Your task to perform on an android device: open app "DoorDash - Food Delivery" Image 0: 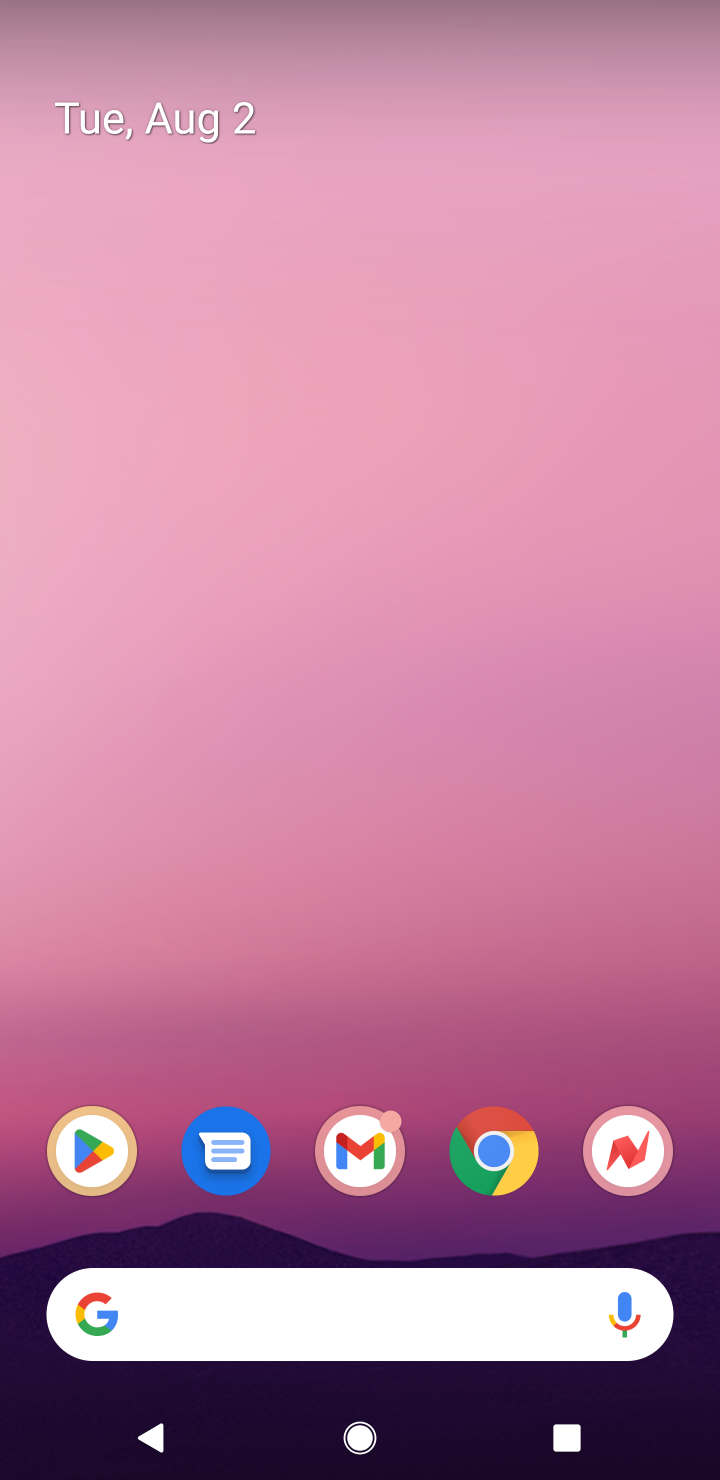
Step 0: click (113, 1137)
Your task to perform on an android device: open app "DoorDash - Food Delivery" Image 1: 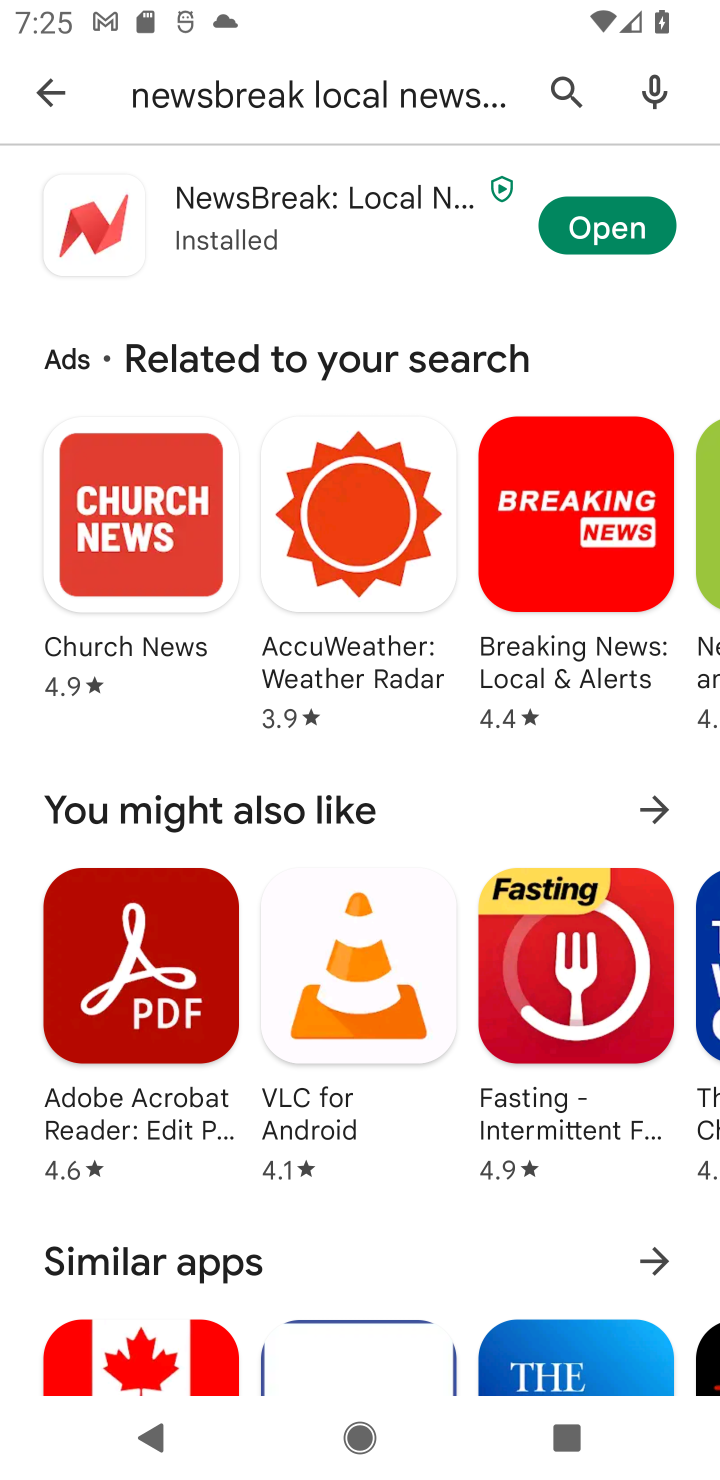
Step 1: click (550, 80)
Your task to perform on an android device: open app "DoorDash - Food Delivery" Image 2: 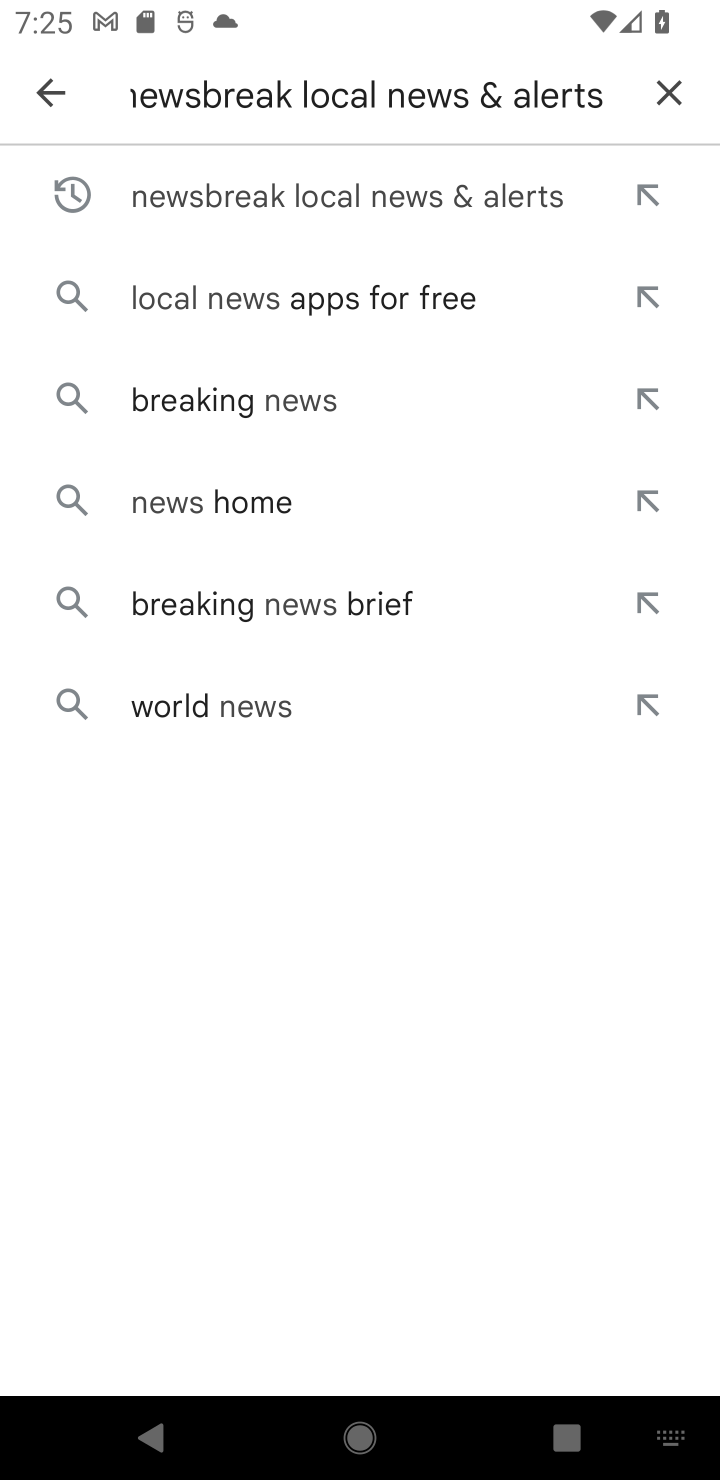
Step 2: click (664, 87)
Your task to perform on an android device: open app "DoorDash - Food Delivery" Image 3: 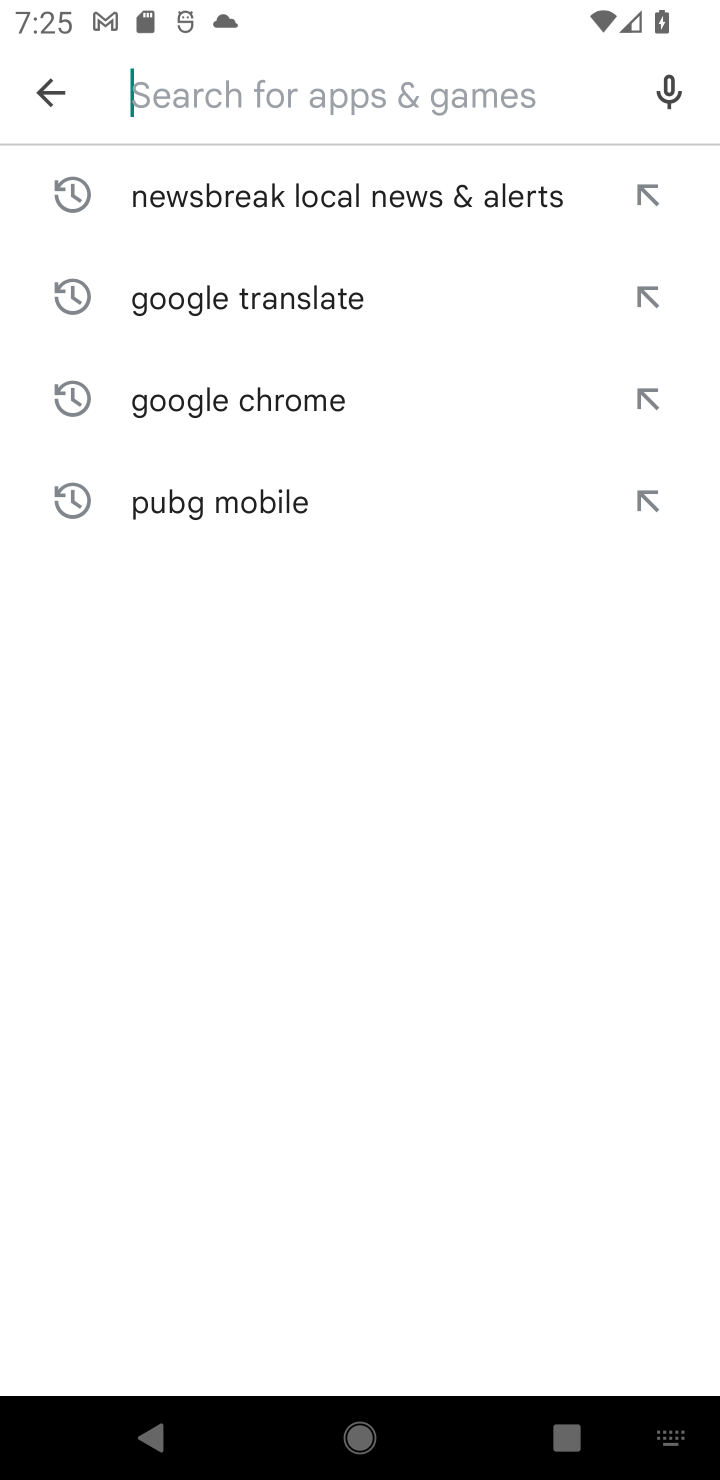
Step 3: type "DoorDash - Food Delivery"
Your task to perform on an android device: open app "DoorDash - Food Delivery" Image 4: 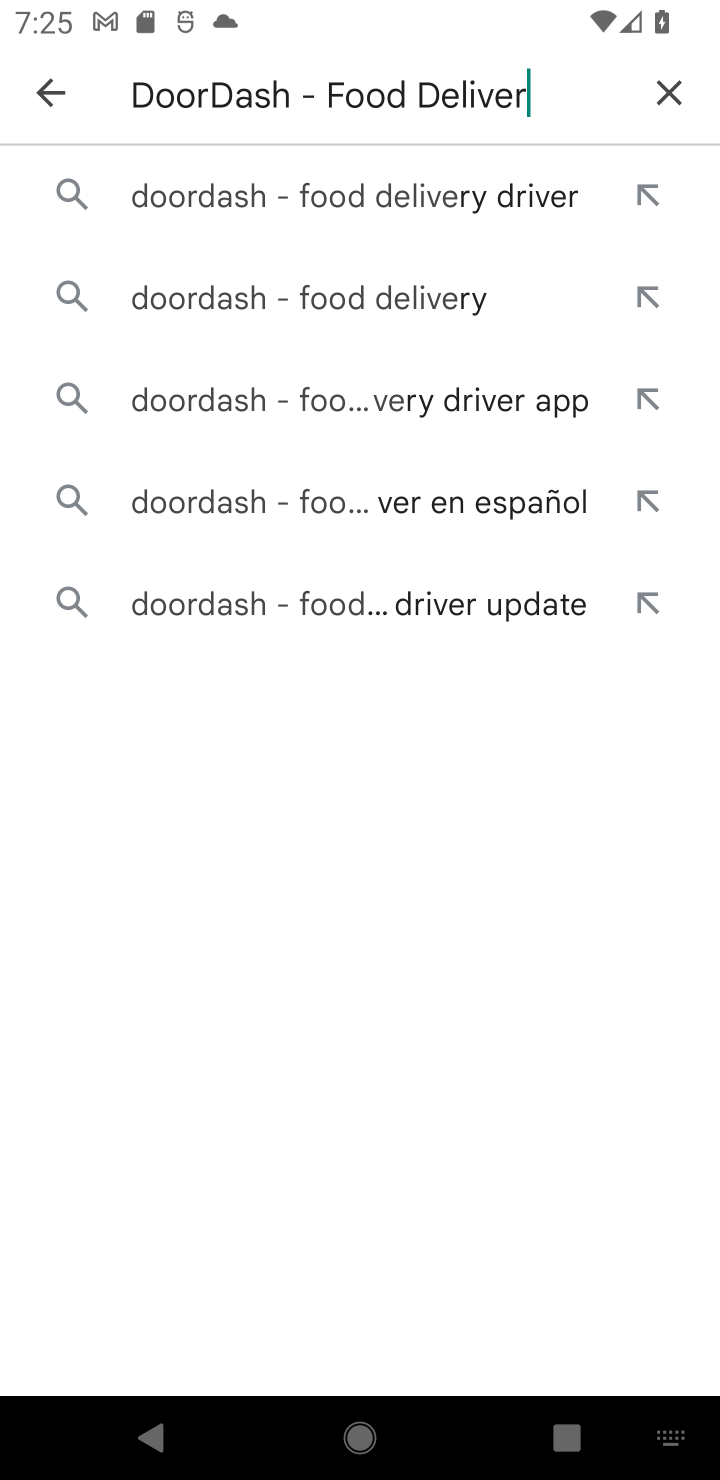
Step 4: type ""
Your task to perform on an android device: open app "DoorDash - Food Delivery" Image 5: 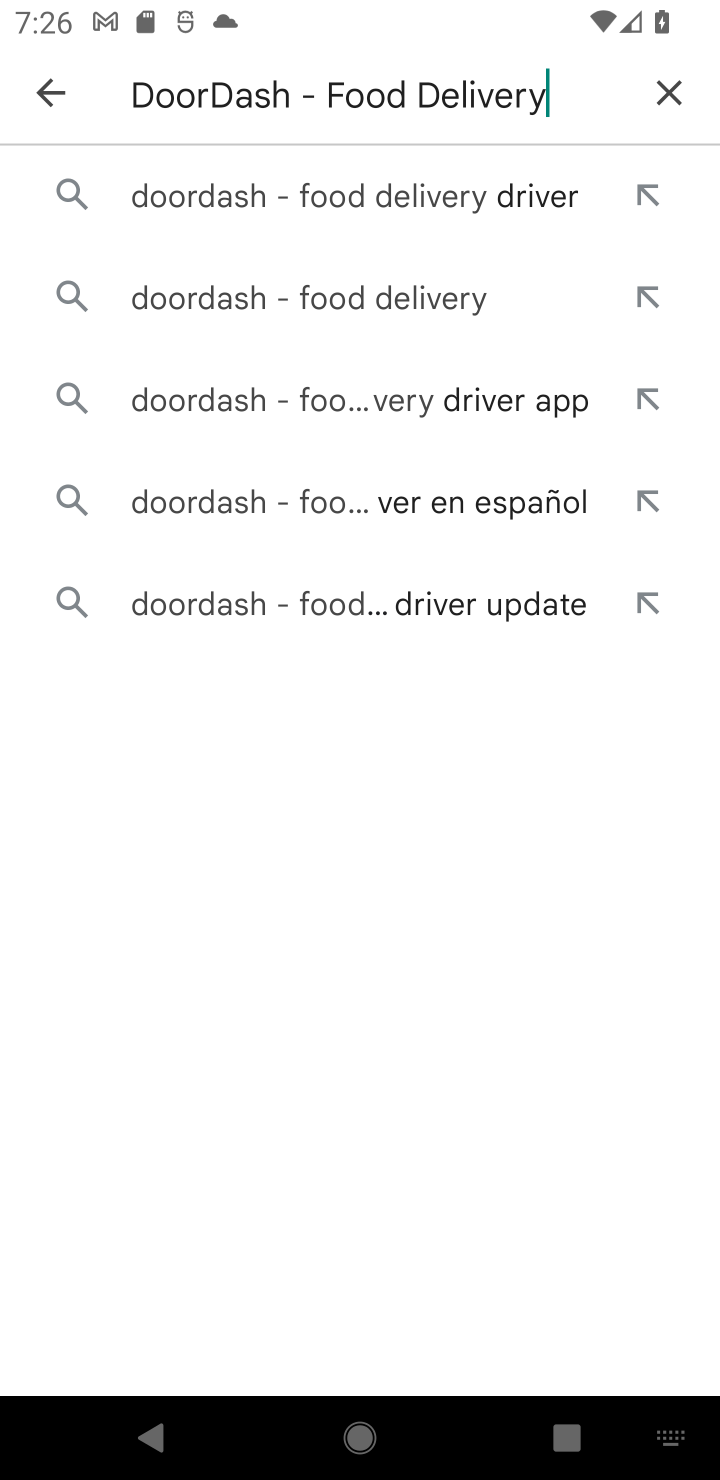
Step 5: click (428, 303)
Your task to perform on an android device: open app "DoorDash - Food Delivery" Image 6: 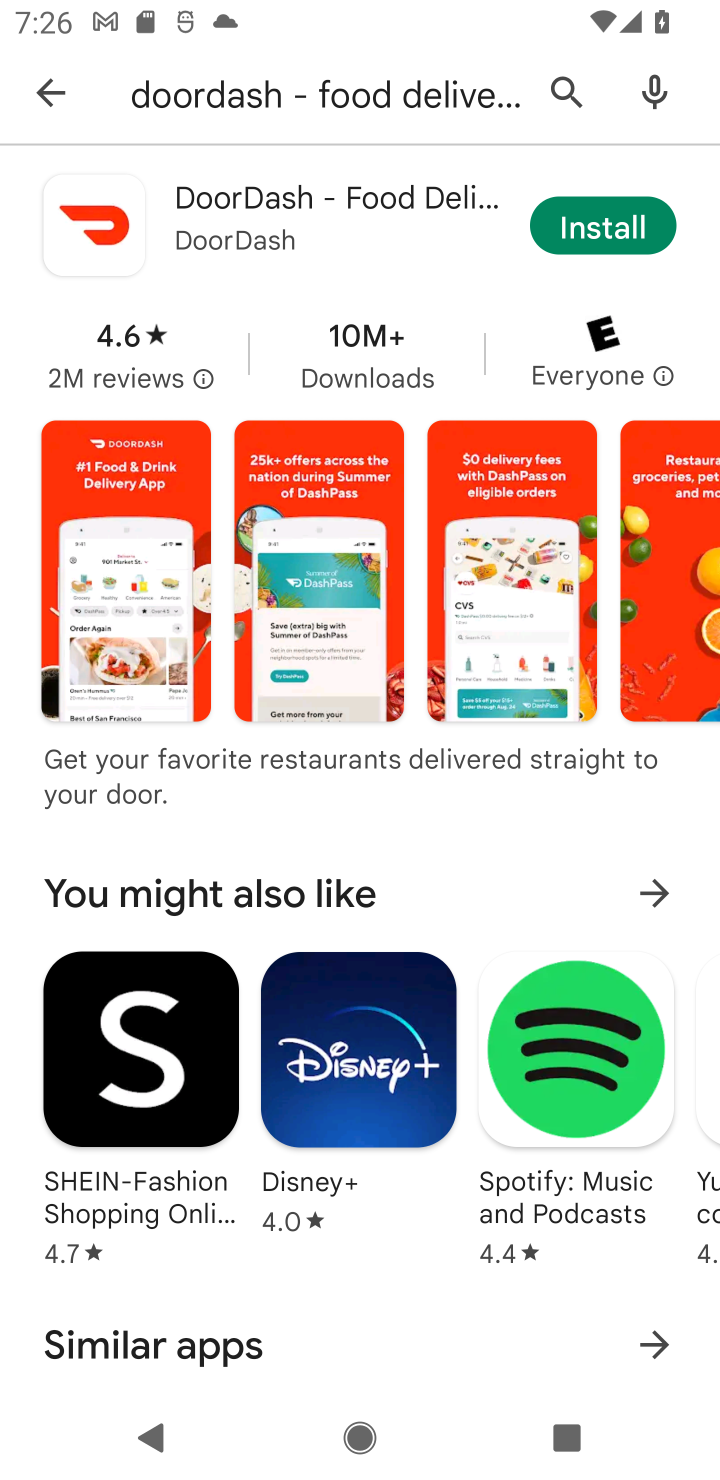
Step 6: task complete